Your task to perform on an android device: Open Google Chrome and open the bookmarks view Image 0: 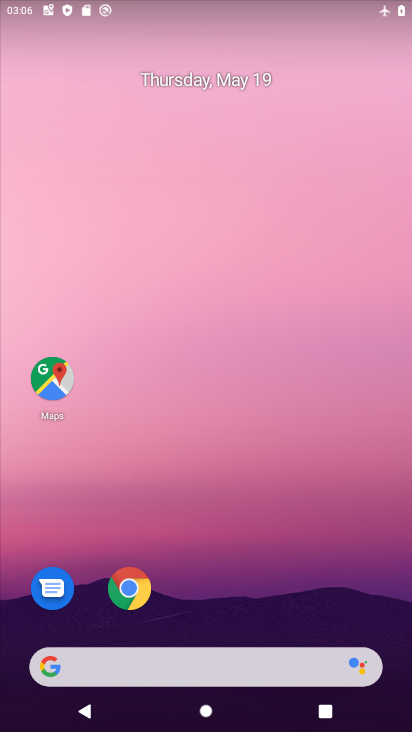
Step 0: click (134, 587)
Your task to perform on an android device: Open Google Chrome and open the bookmarks view Image 1: 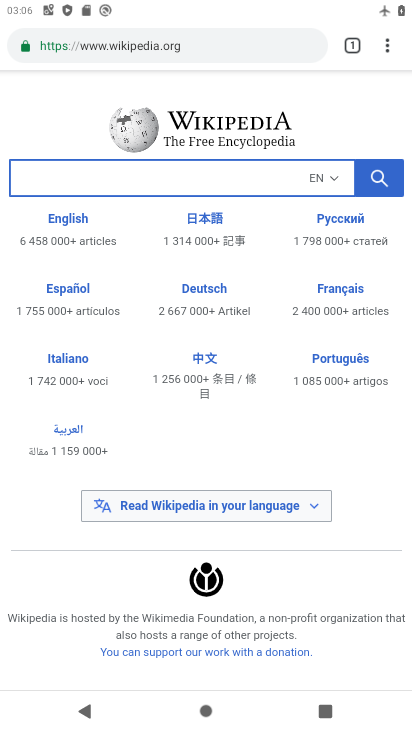
Step 1: click (383, 45)
Your task to perform on an android device: Open Google Chrome and open the bookmarks view Image 2: 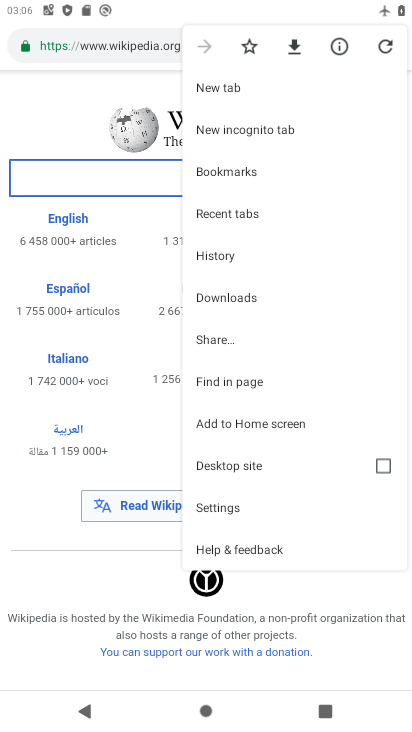
Step 2: click (262, 178)
Your task to perform on an android device: Open Google Chrome and open the bookmarks view Image 3: 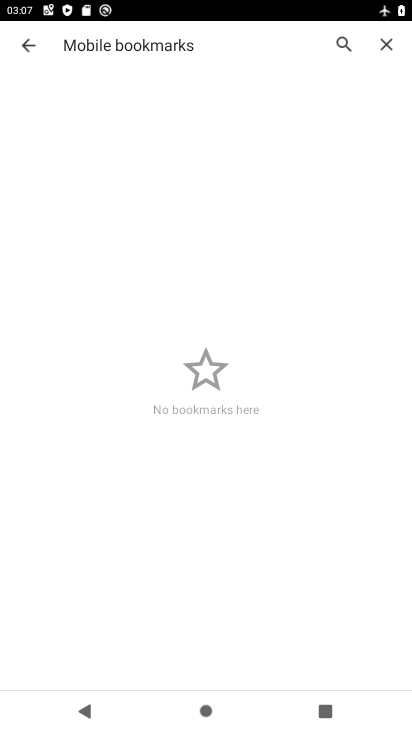
Step 3: task complete